Your task to perform on an android device: open chrome privacy settings Image 0: 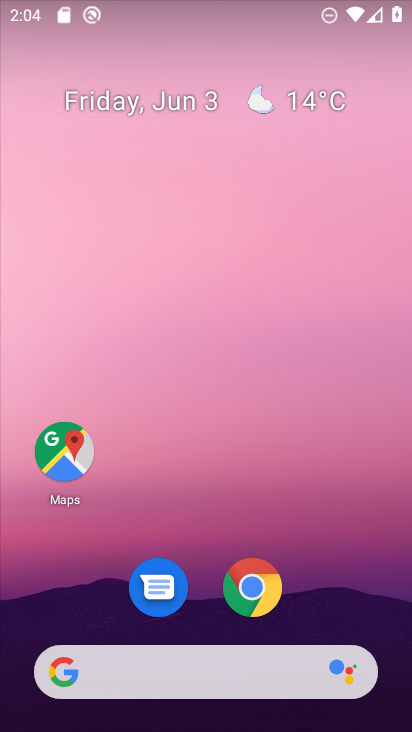
Step 0: click (240, 591)
Your task to perform on an android device: open chrome privacy settings Image 1: 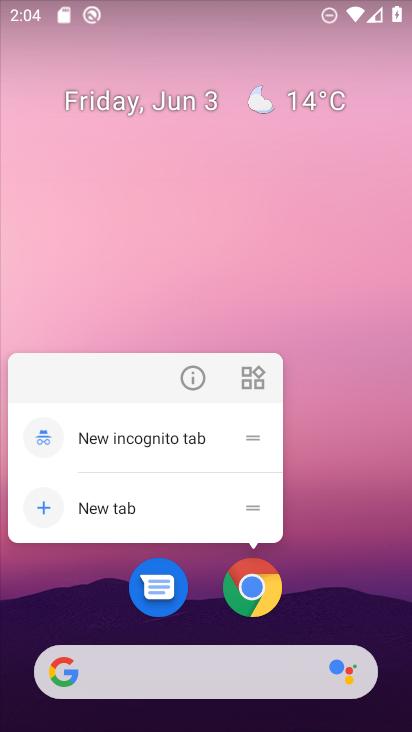
Step 1: click (233, 583)
Your task to perform on an android device: open chrome privacy settings Image 2: 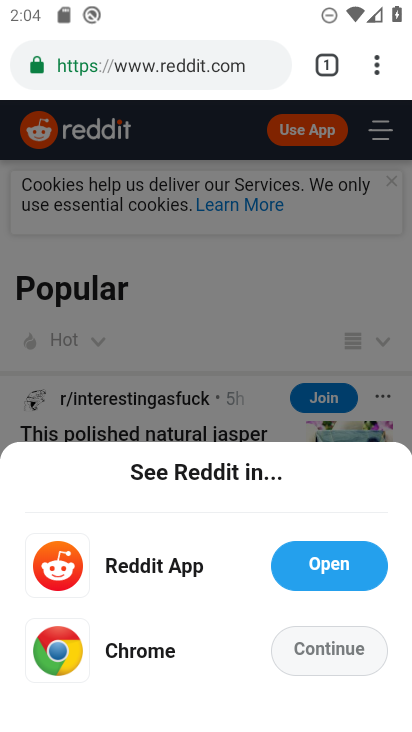
Step 2: click (372, 67)
Your task to perform on an android device: open chrome privacy settings Image 3: 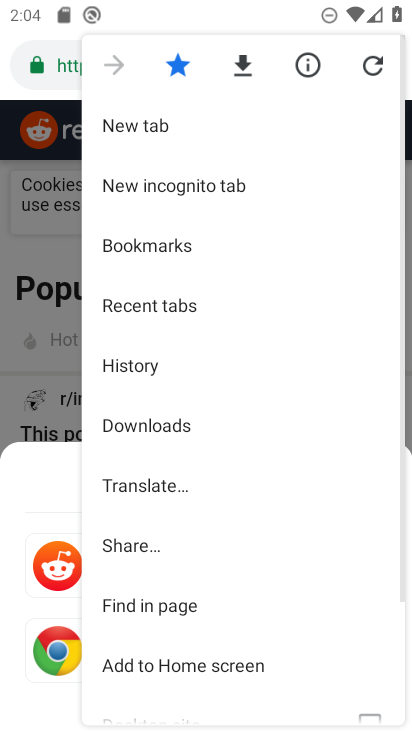
Step 3: drag from (235, 646) to (258, 98)
Your task to perform on an android device: open chrome privacy settings Image 4: 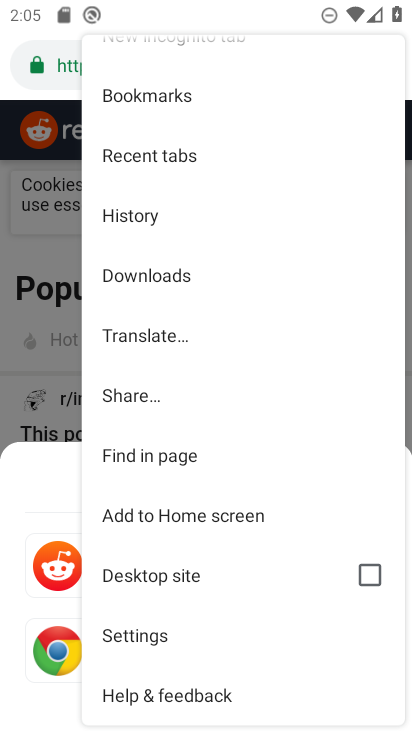
Step 4: click (170, 632)
Your task to perform on an android device: open chrome privacy settings Image 5: 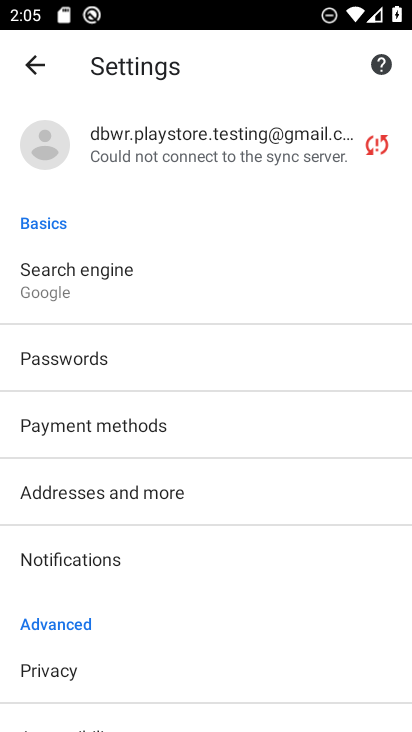
Step 5: click (125, 673)
Your task to perform on an android device: open chrome privacy settings Image 6: 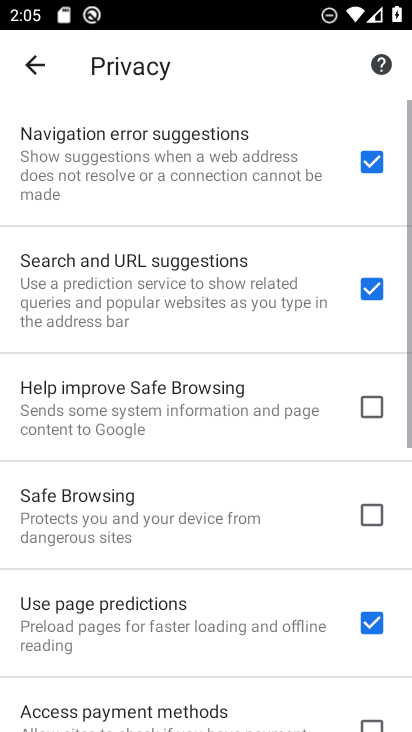
Step 6: task complete